Your task to perform on an android device: turn on data saver in the chrome app Image 0: 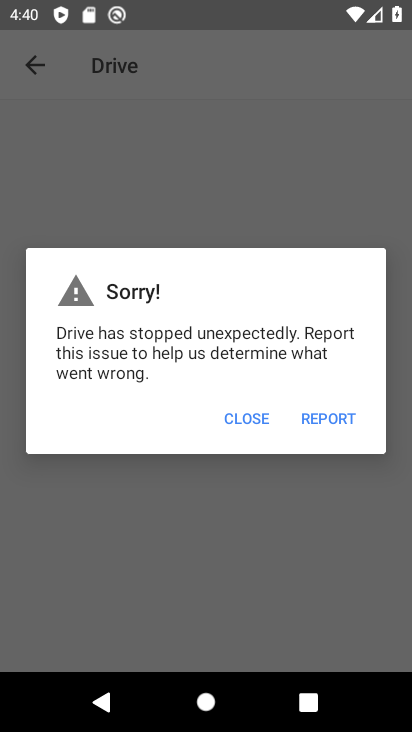
Step 0: press home button
Your task to perform on an android device: turn on data saver in the chrome app Image 1: 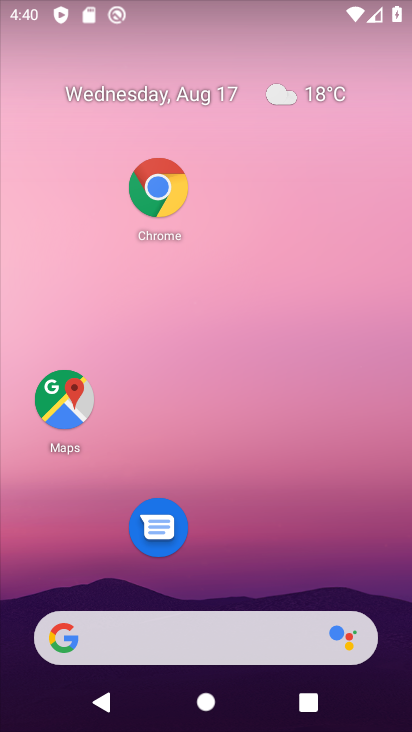
Step 1: click (157, 205)
Your task to perform on an android device: turn on data saver in the chrome app Image 2: 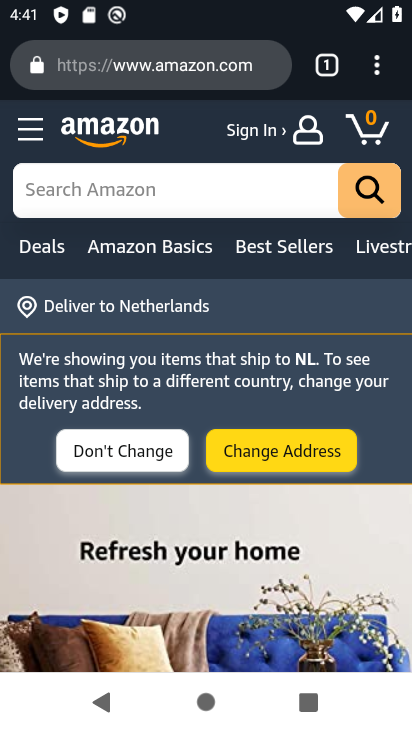
Step 2: click (394, 75)
Your task to perform on an android device: turn on data saver in the chrome app Image 3: 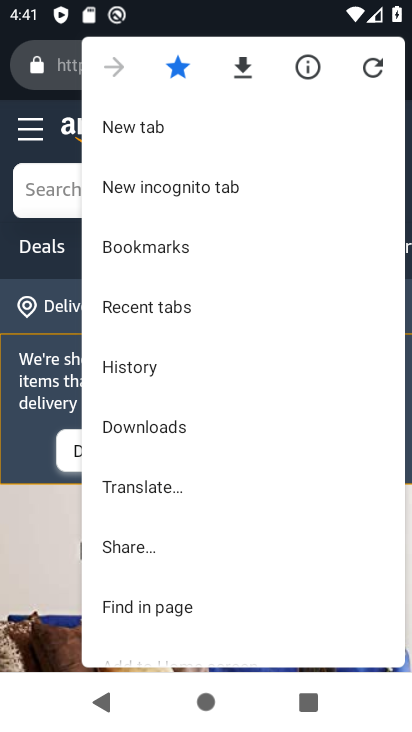
Step 3: drag from (187, 642) to (197, 123)
Your task to perform on an android device: turn on data saver in the chrome app Image 4: 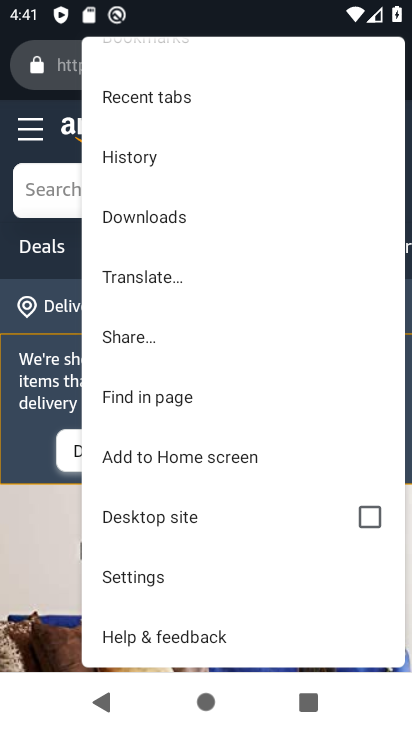
Step 4: click (184, 569)
Your task to perform on an android device: turn on data saver in the chrome app Image 5: 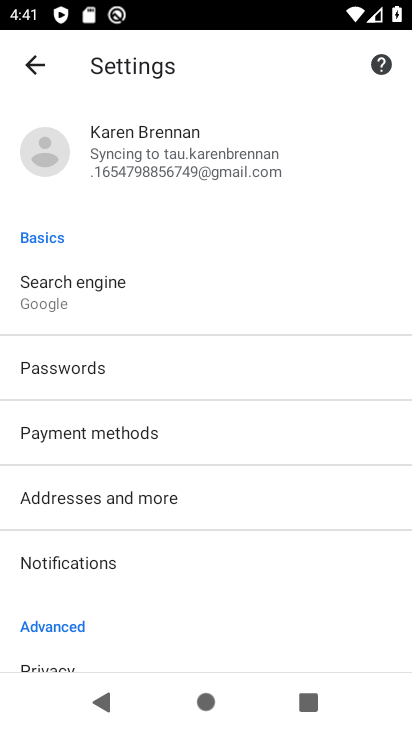
Step 5: drag from (184, 569) to (190, 239)
Your task to perform on an android device: turn on data saver in the chrome app Image 6: 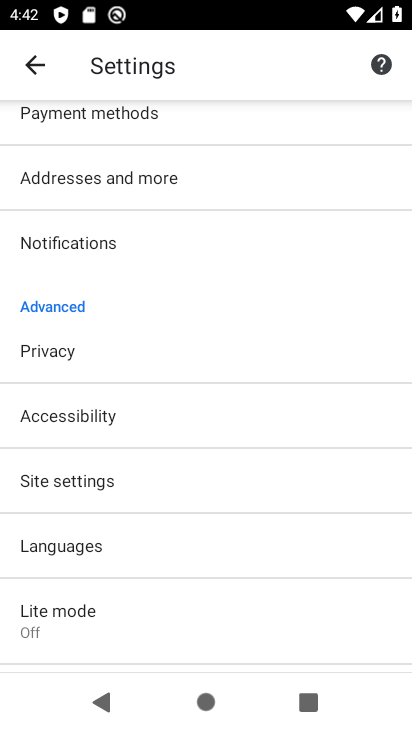
Step 6: drag from (124, 633) to (149, 294)
Your task to perform on an android device: turn on data saver in the chrome app Image 7: 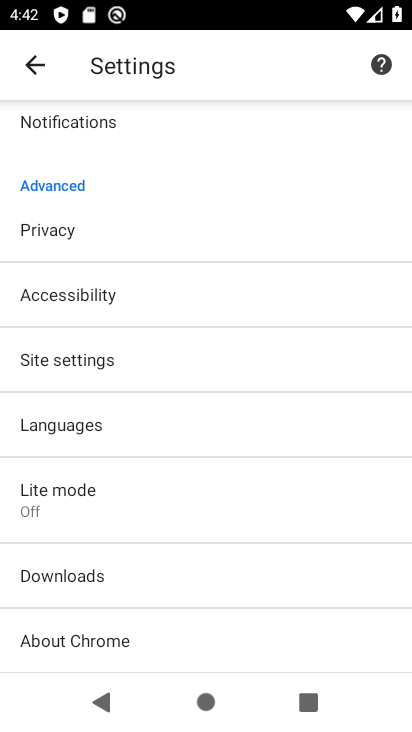
Step 7: click (152, 510)
Your task to perform on an android device: turn on data saver in the chrome app Image 8: 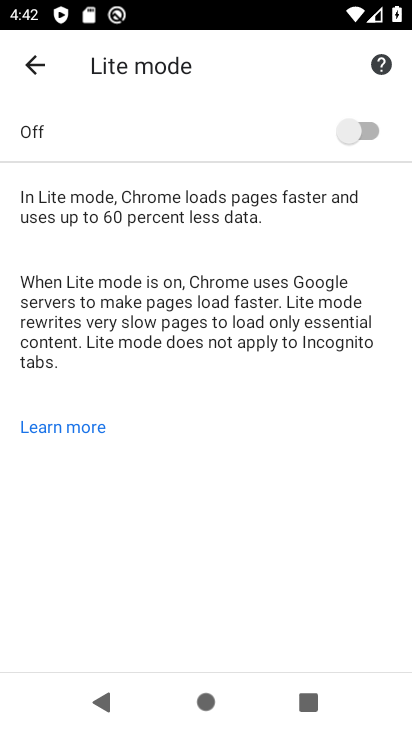
Step 8: click (357, 137)
Your task to perform on an android device: turn on data saver in the chrome app Image 9: 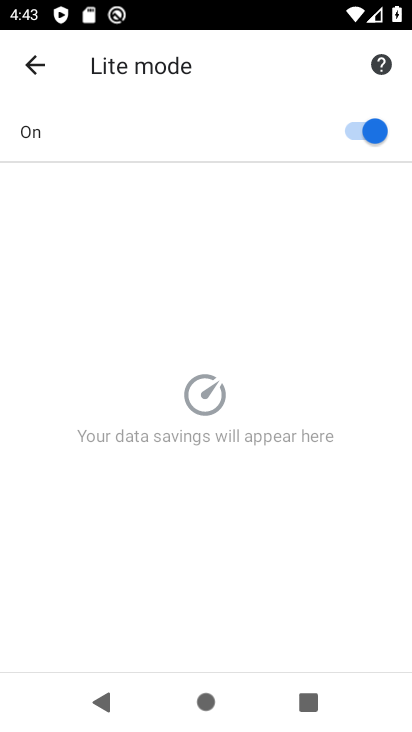
Step 9: task complete